Your task to perform on an android device: turn off airplane mode Image 0: 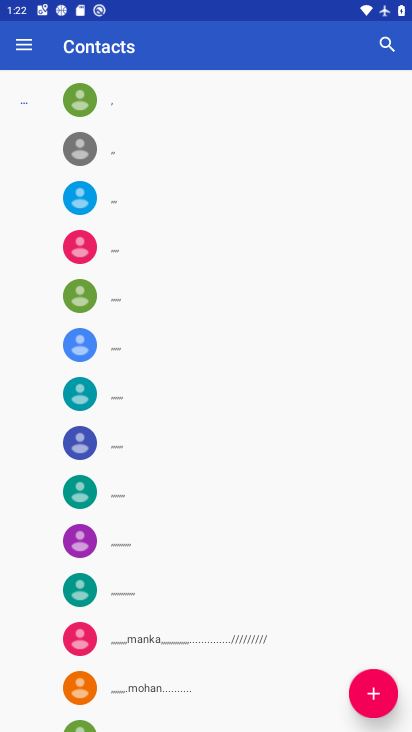
Step 0: press home button
Your task to perform on an android device: turn off airplane mode Image 1: 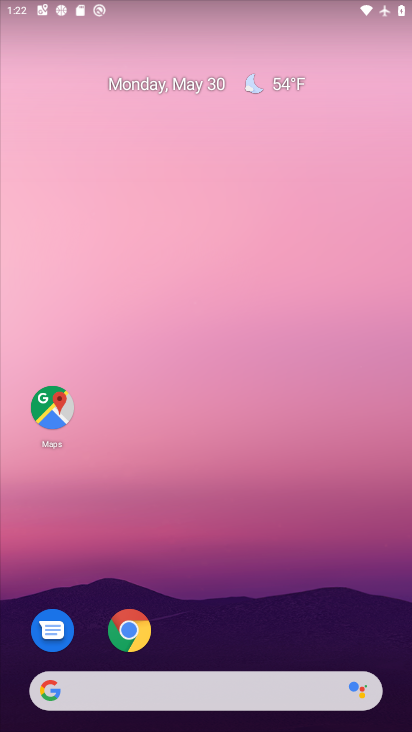
Step 1: drag from (153, 689) to (343, 42)
Your task to perform on an android device: turn off airplane mode Image 2: 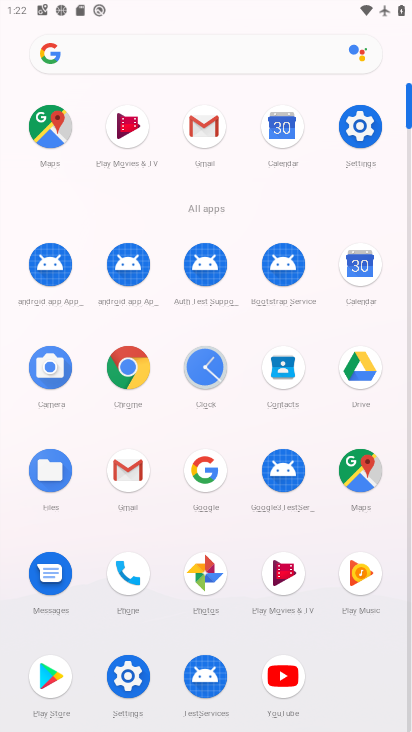
Step 2: click (362, 130)
Your task to perform on an android device: turn off airplane mode Image 3: 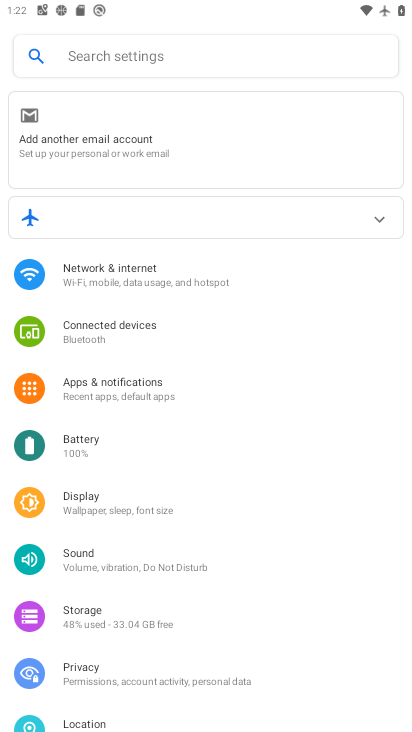
Step 3: click (155, 283)
Your task to perform on an android device: turn off airplane mode Image 4: 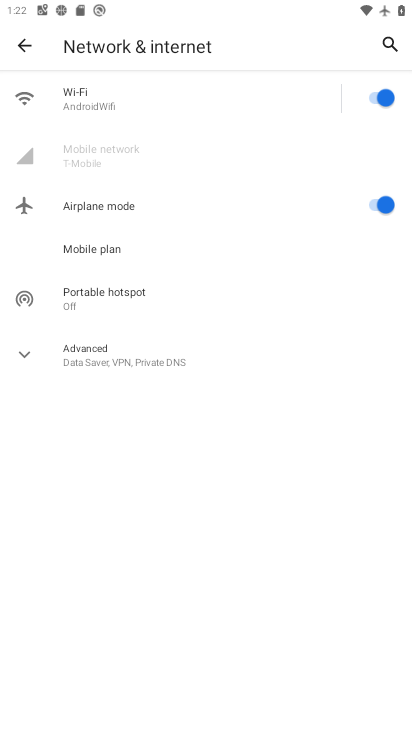
Step 4: click (373, 202)
Your task to perform on an android device: turn off airplane mode Image 5: 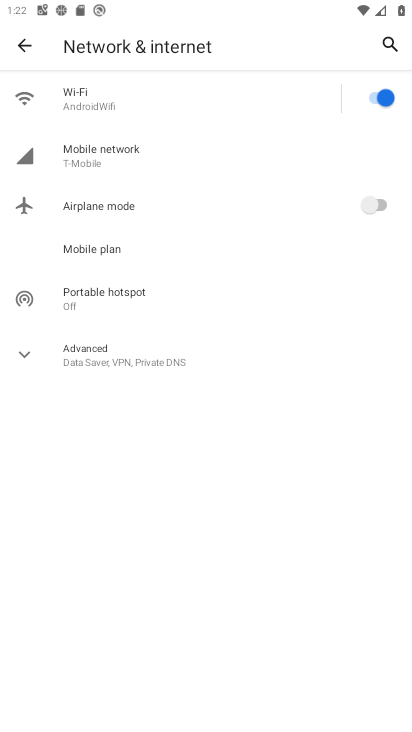
Step 5: task complete